Your task to perform on an android device: Show me the alarms in the clock app Image 0: 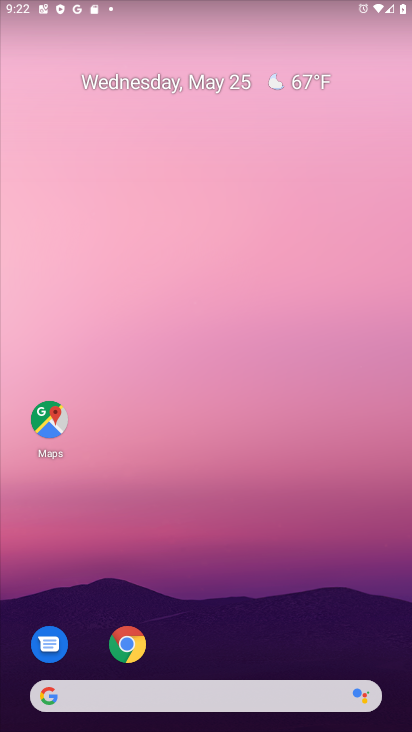
Step 0: press home button
Your task to perform on an android device: Show me the alarms in the clock app Image 1: 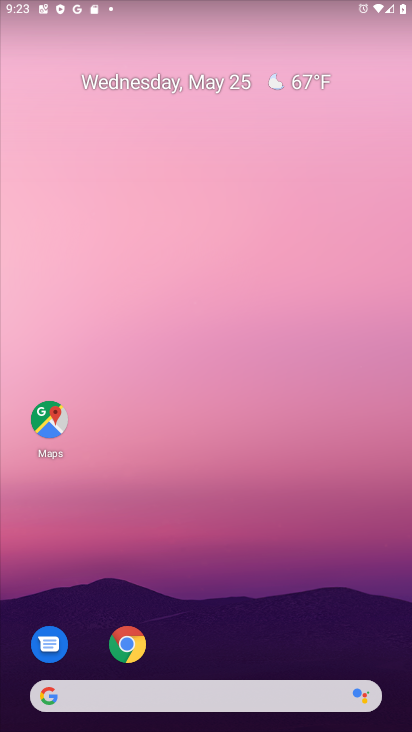
Step 1: drag from (217, 654) to (220, 50)
Your task to perform on an android device: Show me the alarms in the clock app Image 2: 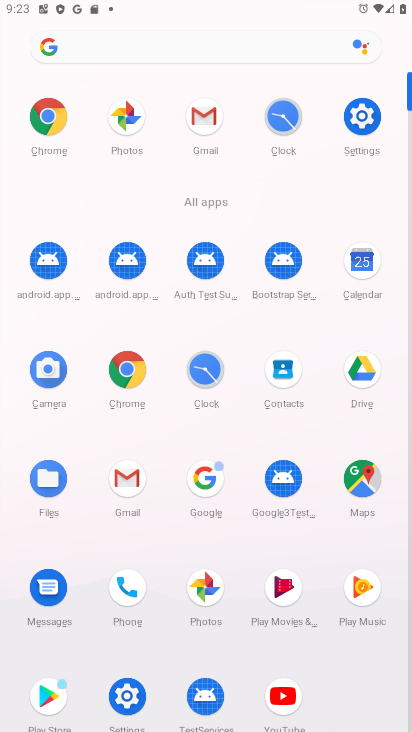
Step 2: click (206, 363)
Your task to perform on an android device: Show me the alarms in the clock app Image 3: 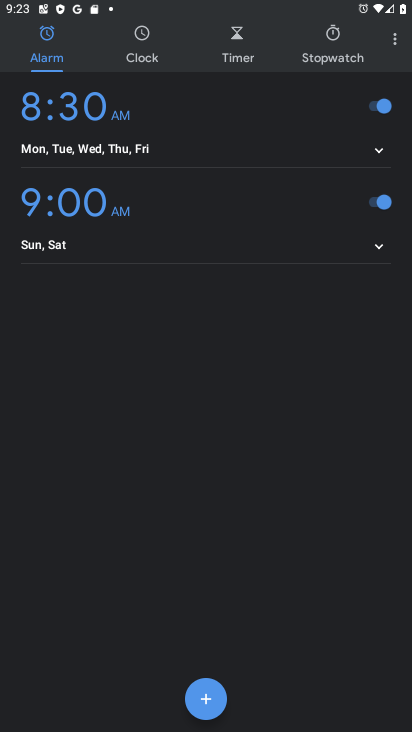
Step 3: task complete